Your task to perform on an android device: toggle wifi Image 0: 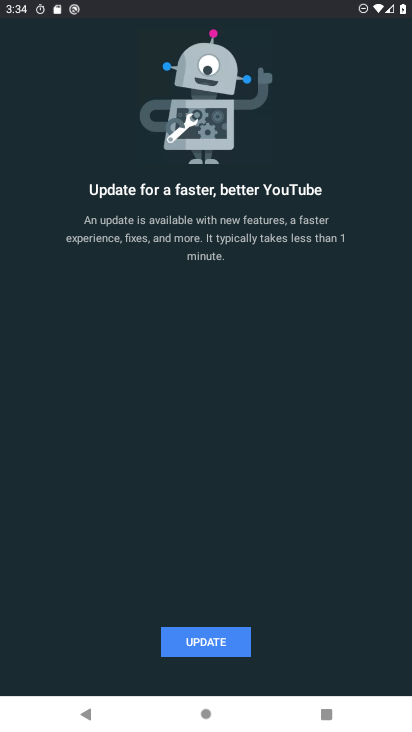
Step 0: press home button
Your task to perform on an android device: toggle wifi Image 1: 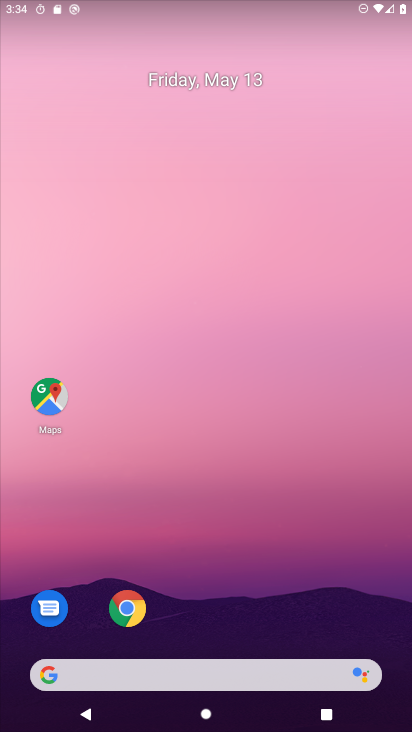
Step 1: click (286, 571)
Your task to perform on an android device: toggle wifi Image 2: 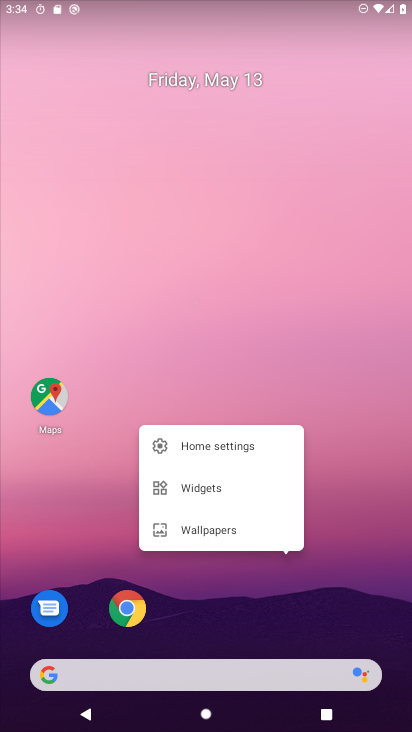
Step 2: drag from (166, 12) to (169, 344)
Your task to perform on an android device: toggle wifi Image 3: 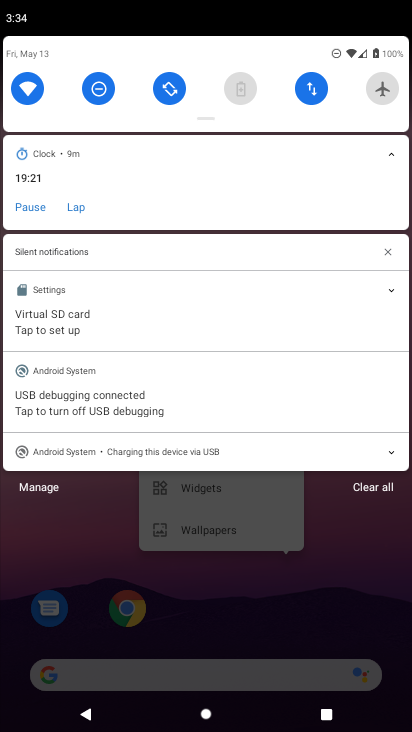
Step 3: click (32, 89)
Your task to perform on an android device: toggle wifi Image 4: 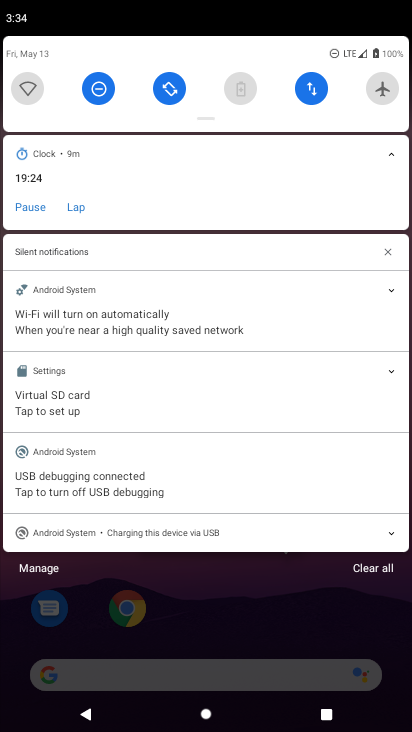
Step 4: task complete